Your task to perform on an android device: Go to Maps Image 0: 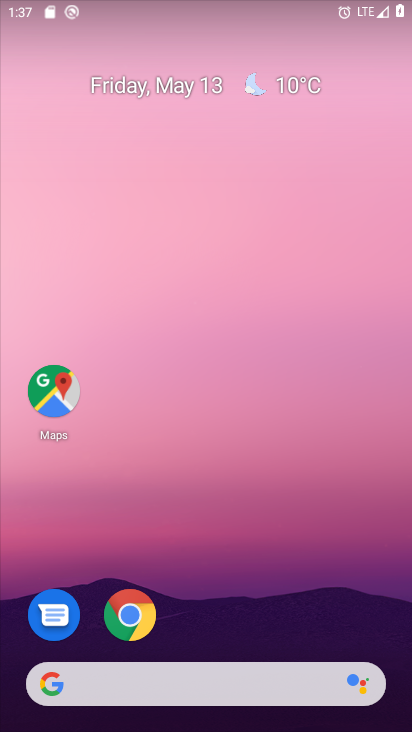
Step 0: click (56, 387)
Your task to perform on an android device: Go to Maps Image 1: 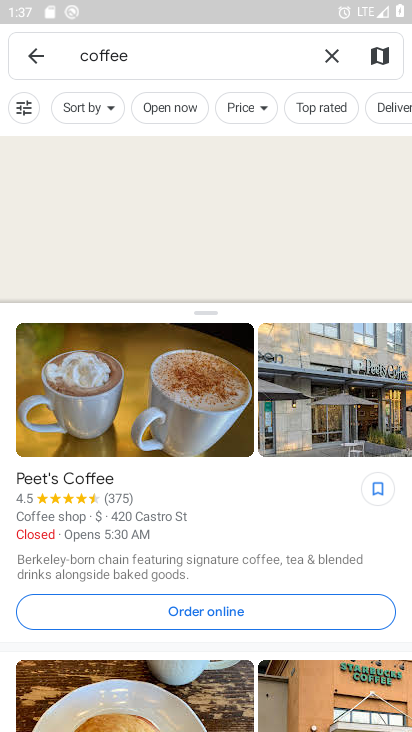
Step 1: click (332, 52)
Your task to perform on an android device: Go to Maps Image 2: 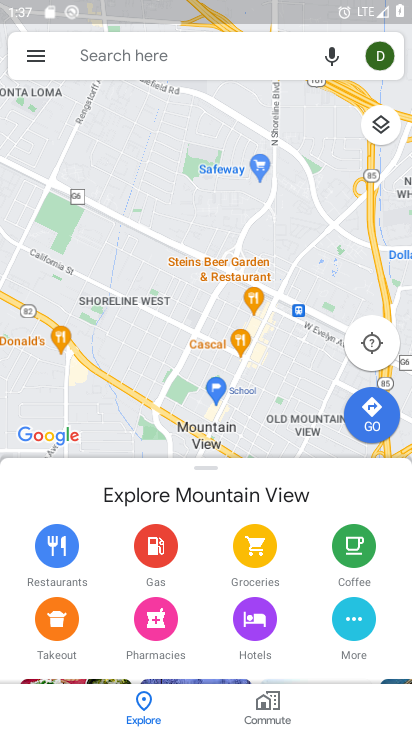
Step 2: task complete